Your task to perform on an android device: Search for sushi restaurants on Maps Image 0: 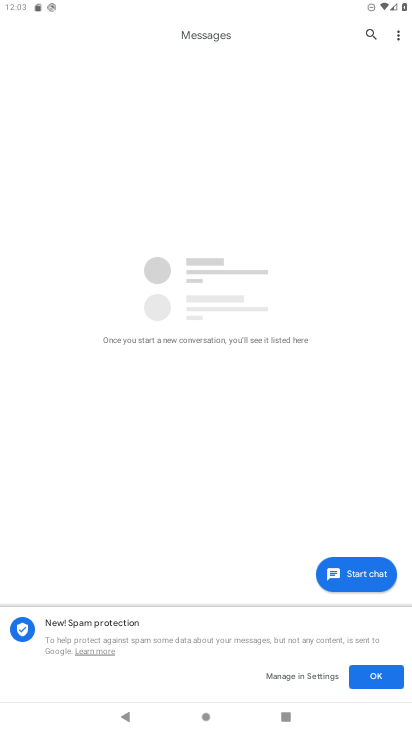
Step 0: press home button
Your task to perform on an android device: Search for sushi restaurants on Maps Image 1: 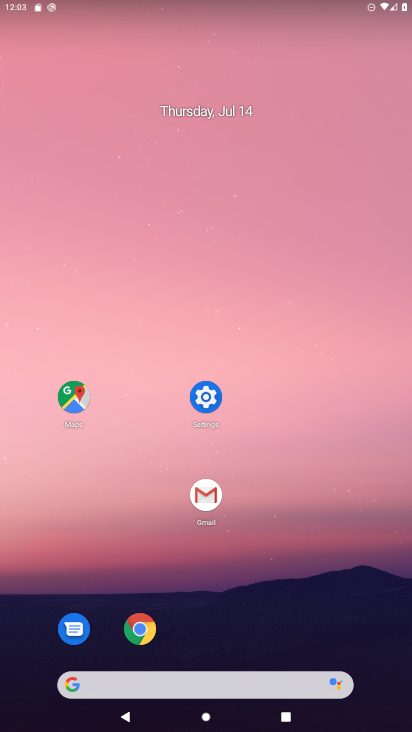
Step 1: click (71, 386)
Your task to perform on an android device: Search for sushi restaurants on Maps Image 2: 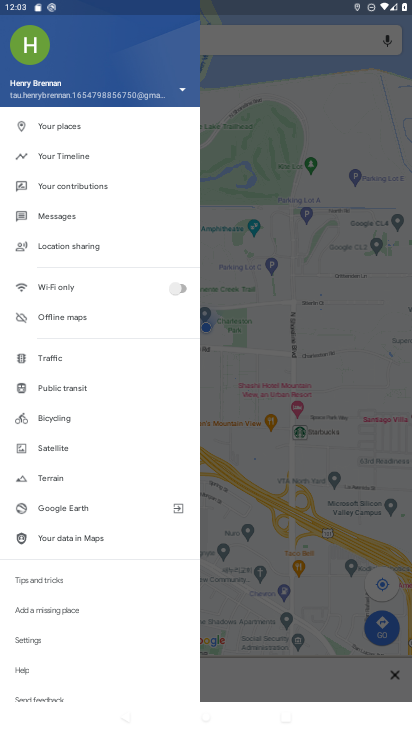
Step 2: click (322, 51)
Your task to perform on an android device: Search for sushi restaurants on Maps Image 3: 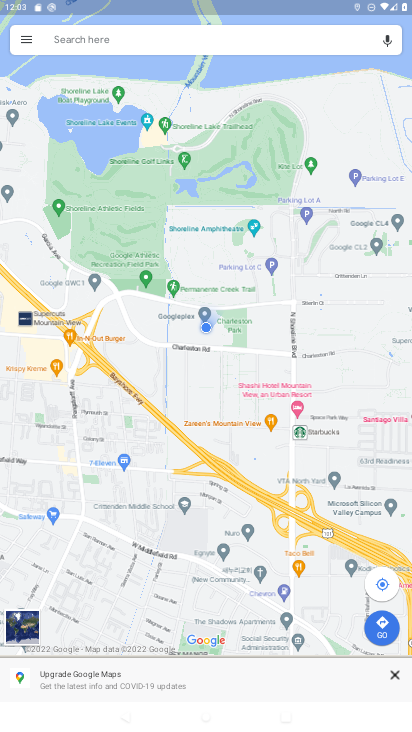
Step 3: click (204, 41)
Your task to perform on an android device: Search for sushi restaurants on Maps Image 4: 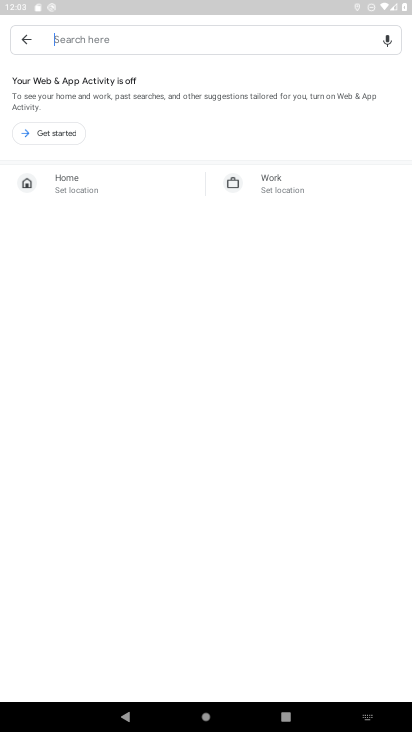
Step 4: type "sushi restaurants"
Your task to perform on an android device: Search for sushi restaurants on Maps Image 5: 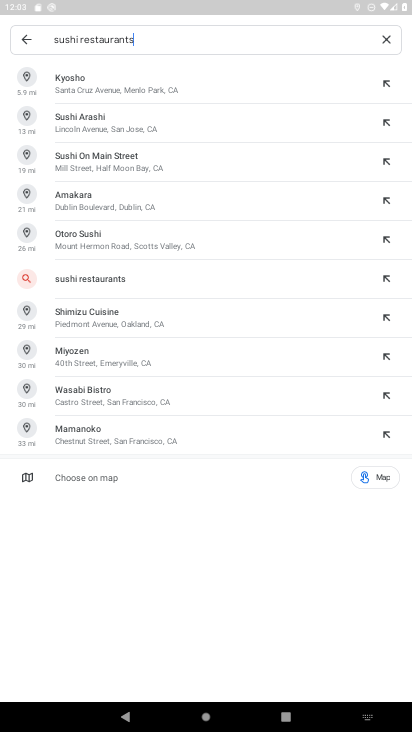
Step 5: click (46, 276)
Your task to perform on an android device: Search for sushi restaurants on Maps Image 6: 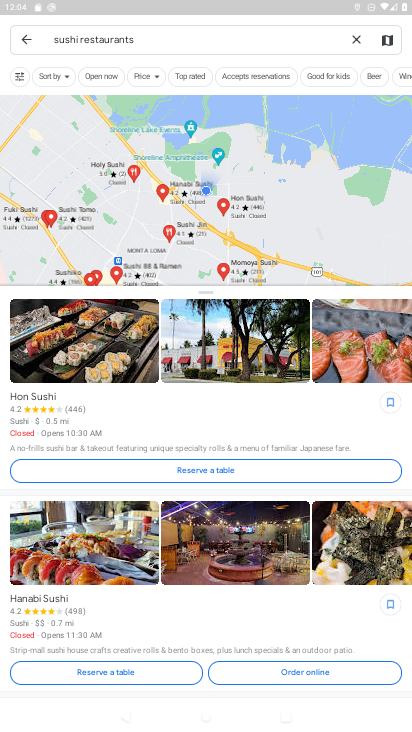
Step 6: task complete